Your task to perform on an android device: Clear the shopping cart on amazon.com. Add razer blade to the cart on amazon.com, then select checkout. Image 0: 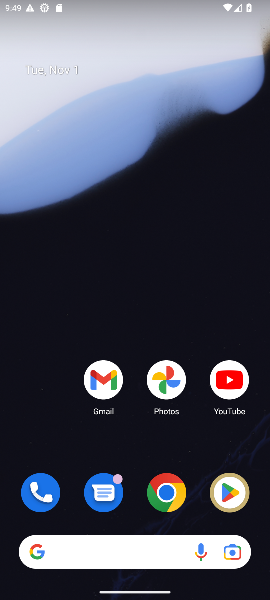
Step 0: click (174, 498)
Your task to perform on an android device: Clear the shopping cart on amazon.com. Add razer blade to the cart on amazon.com, then select checkout. Image 1: 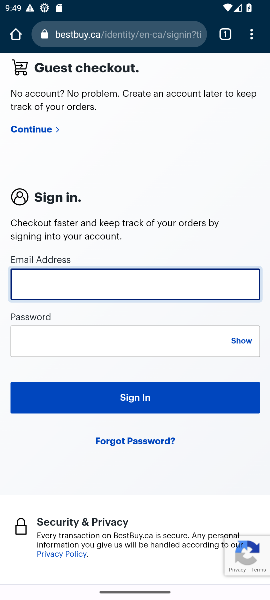
Step 1: press home button
Your task to perform on an android device: Clear the shopping cart on amazon.com. Add razer blade to the cart on amazon.com, then select checkout. Image 2: 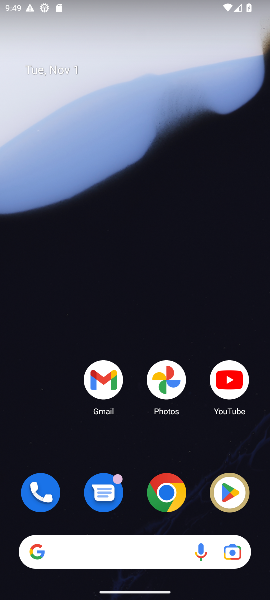
Step 2: click (169, 478)
Your task to perform on an android device: Clear the shopping cart on amazon.com. Add razer blade to the cart on amazon.com, then select checkout. Image 3: 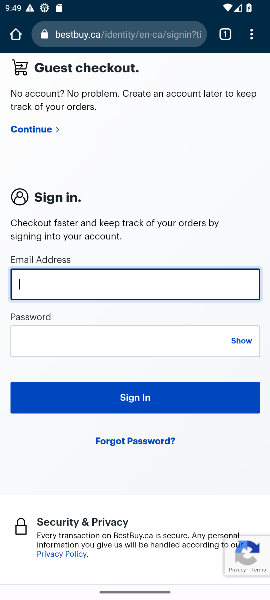
Step 3: click (118, 34)
Your task to perform on an android device: Clear the shopping cart on amazon.com. Add razer blade to the cart on amazon.com, then select checkout. Image 4: 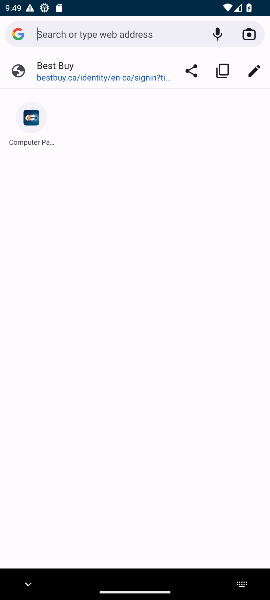
Step 4: type "amazon.com"
Your task to perform on an android device: Clear the shopping cart on amazon.com. Add razer blade to the cart on amazon.com, then select checkout. Image 5: 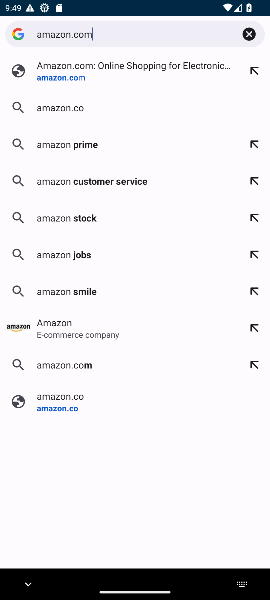
Step 5: type ""
Your task to perform on an android device: Clear the shopping cart on amazon.com. Add razer blade to the cart on amazon.com, then select checkout. Image 6: 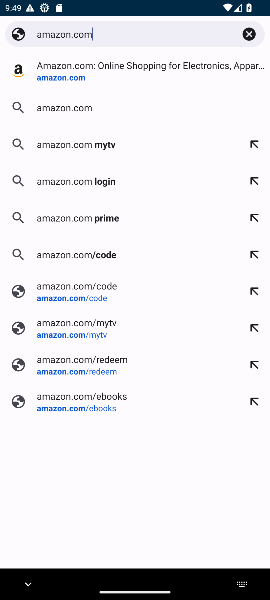
Step 6: click (76, 74)
Your task to perform on an android device: Clear the shopping cart on amazon.com. Add razer blade to the cart on amazon.com, then select checkout. Image 7: 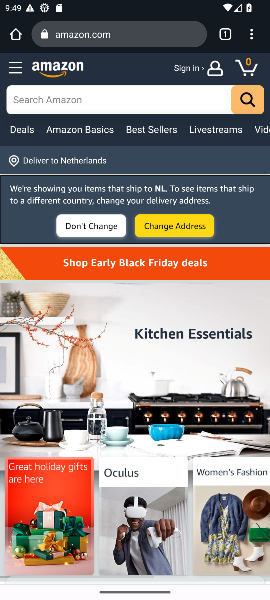
Step 7: click (62, 100)
Your task to perform on an android device: Clear the shopping cart on amazon.com. Add razer blade to the cart on amazon.com, then select checkout. Image 8: 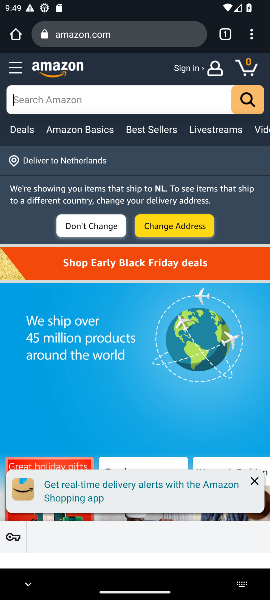
Step 8: type "razer blade"
Your task to perform on an android device: Clear the shopping cart on amazon.com. Add razer blade to the cart on amazon.com, then select checkout. Image 9: 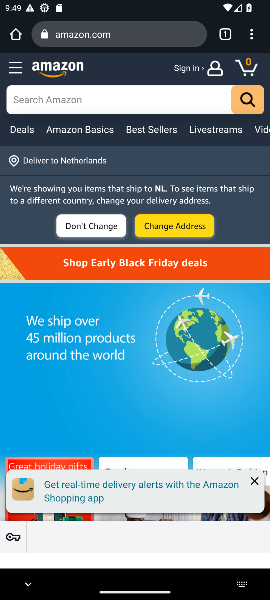
Step 9: type ""
Your task to perform on an android device: Clear the shopping cart on amazon.com. Add razer blade to the cart on amazon.com, then select checkout. Image 10: 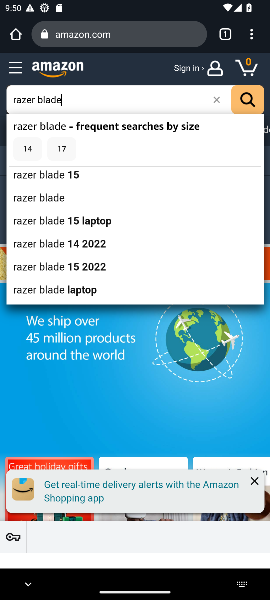
Step 10: click (50, 174)
Your task to perform on an android device: Clear the shopping cart on amazon.com. Add razer blade to the cart on amazon.com, then select checkout. Image 11: 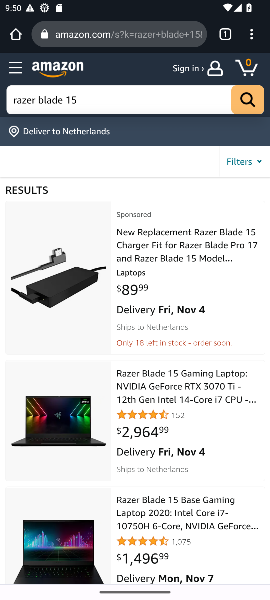
Step 11: click (92, 420)
Your task to perform on an android device: Clear the shopping cart on amazon.com. Add razer blade to the cart on amazon.com, then select checkout. Image 12: 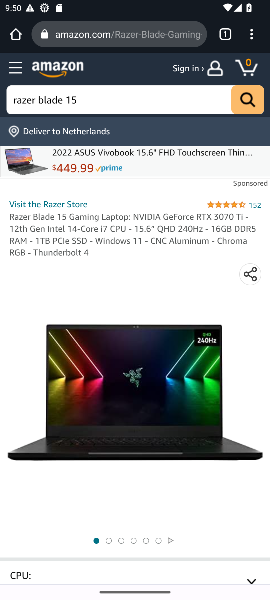
Step 12: drag from (141, 386) to (189, 80)
Your task to perform on an android device: Clear the shopping cart on amazon.com. Add razer blade to the cart on amazon.com, then select checkout. Image 13: 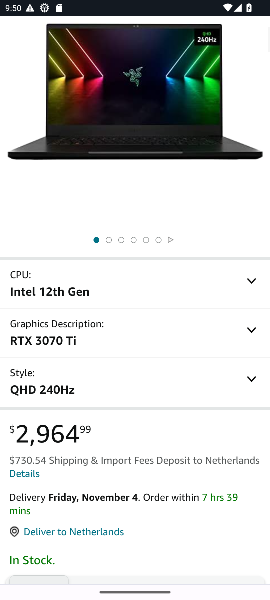
Step 13: drag from (108, 411) to (155, 182)
Your task to perform on an android device: Clear the shopping cart on amazon.com. Add razer blade to the cart on amazon.com, then select checkout. Image 14: 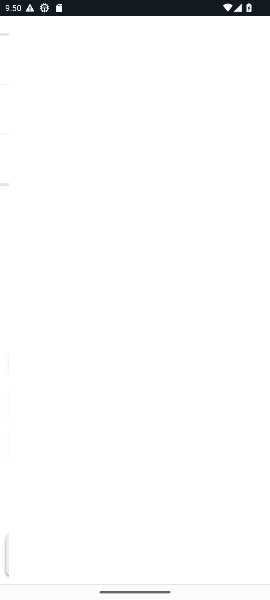
Step 14: press back button
Your task to perform on an android device: Clear the shopping cart on amazon.com. Add razer blade to the cart on amazon.com, then select checkout. Image 15: 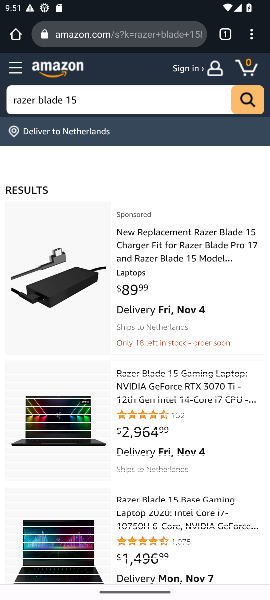
Step 15: click (175, 517)
Your task to perform on an android device: Clear the shopping cart on amazon.com. Add razer blade to the cart on amazon.com, then select checkout. Image 16: 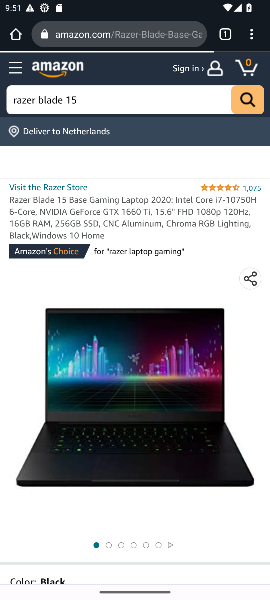
Step 16: drag from (164, 489) to (236, 3)
Your task to perform on an android device: Clear the shopping cart on amazon.com. Add razer blade to the cart on amazon.com, then select checkout. Image 17: 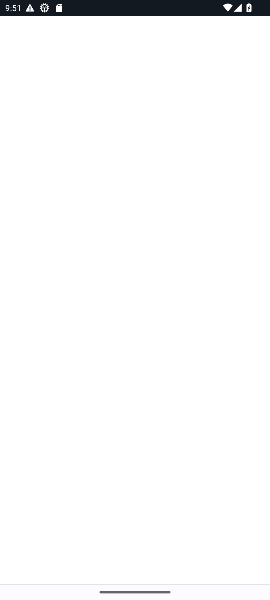
Step 17: click (121, 381)
Your task to perform on an android device: Clear the shopping cart on amazon.com. Add razer blade to the cart on amazon.com, then select checkout. Image 18: 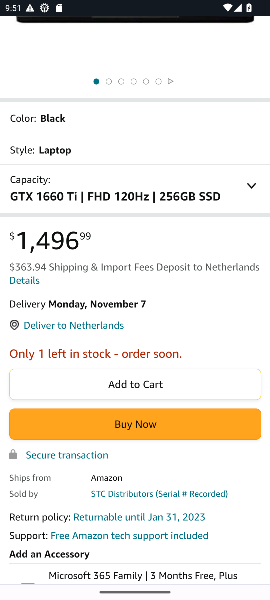
Step 18: click (118, 383)
Your task to perform on an android device: Clear the shopping cart on amazon.com. Add razer blade to the cart on amazon.com, then select checkout. Image 19: 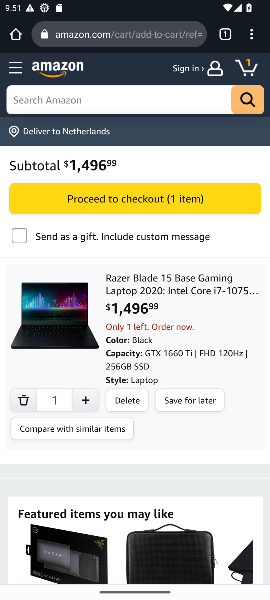
Step 19: click (130, 192)
Your task to perform on an android device: Clear the shopping cart on amazon.com. Add razer blade to the cart on amazon.com, then select checkout. Image 20: 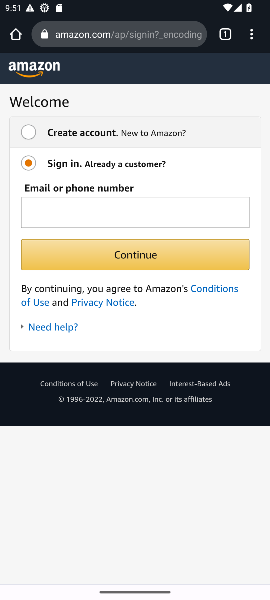
Step 20: task complete